Your task to perform on an android device: set the stopwatch Image 0: 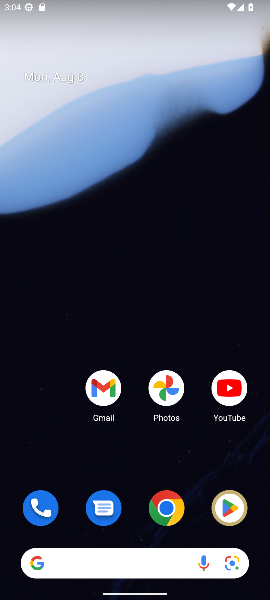
Step 0: drag from (135, 461) to (132, 86)
Your task to perform on an android device: set the stopwatch Image 1: 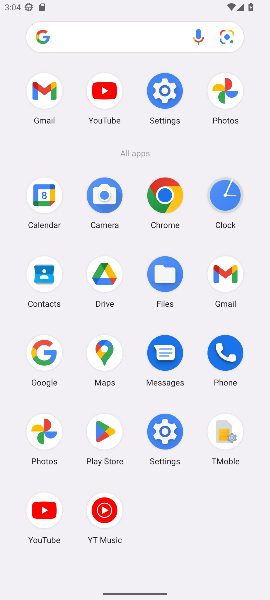
Step 1: click (225, 194)
Your task to perform on an android device: set the stopwatch Image 2: 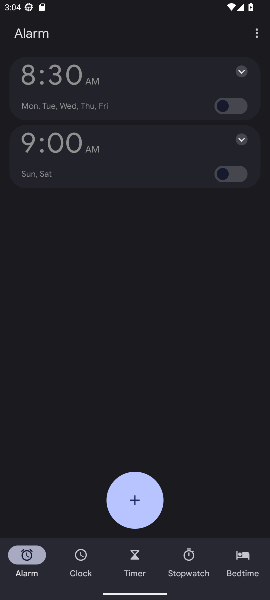
Step 2: click (190, 554)
Your task to perform on an android device: set the stopwatch Image 3: 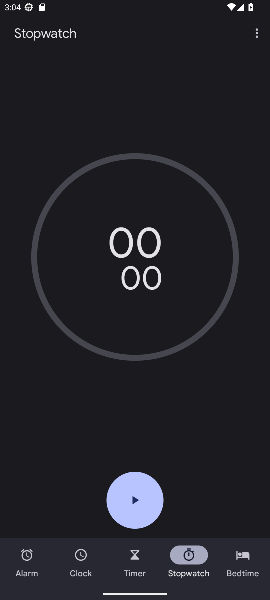
Step 3: task complete